Your task to perform on an android device: turn on wifi Image 0: 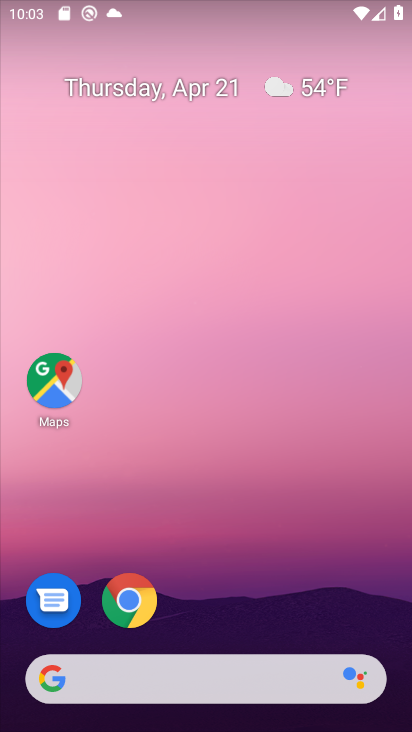
Step 0: drag from (216, 558) to (225, 62)
Your task to perform on an android device: turn on wifi Image 1: 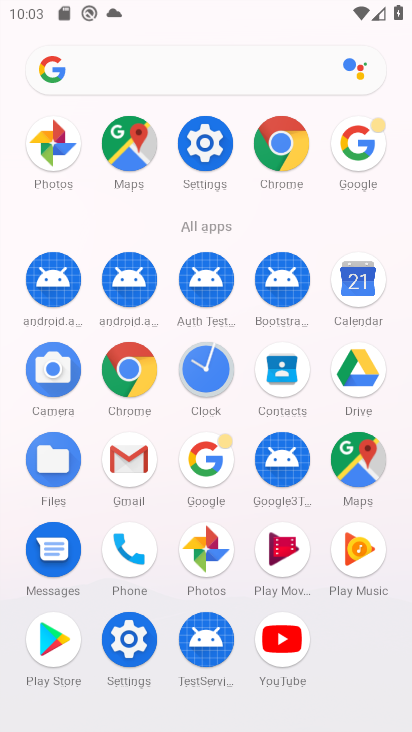
Step 1: click (200, 139)
Your task to perform on an android device: turn on wifi Image 2: 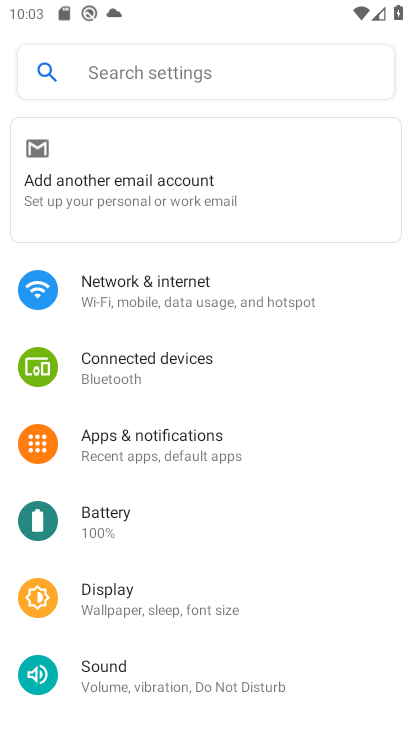
Step 2: click (182, 310)
Your task to perform on an android device: turn on wifi Image 3: 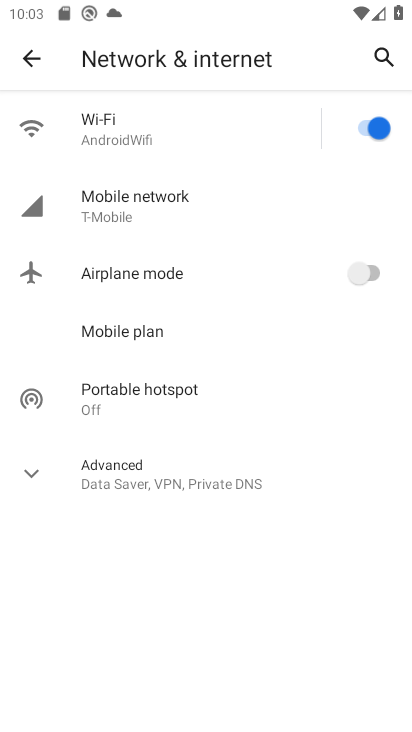
Step 3: task complete